Your task to perform on an android device: Go to accessibility settings Image 0: 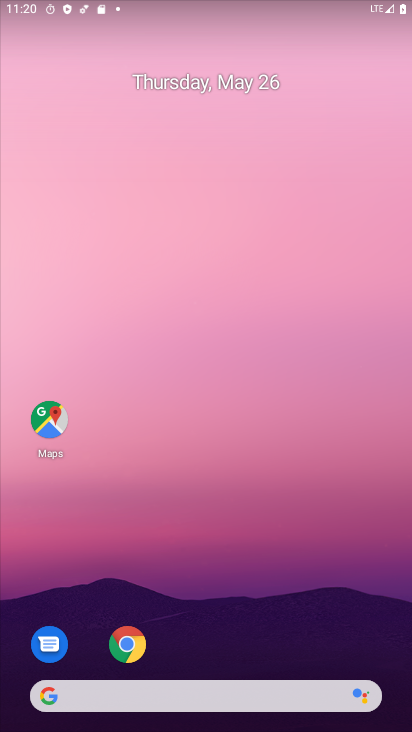
Step 0: drag from (113, 725) to (125, 104)
Your task to perform on an android device: Go to accessibility settings Image 1: 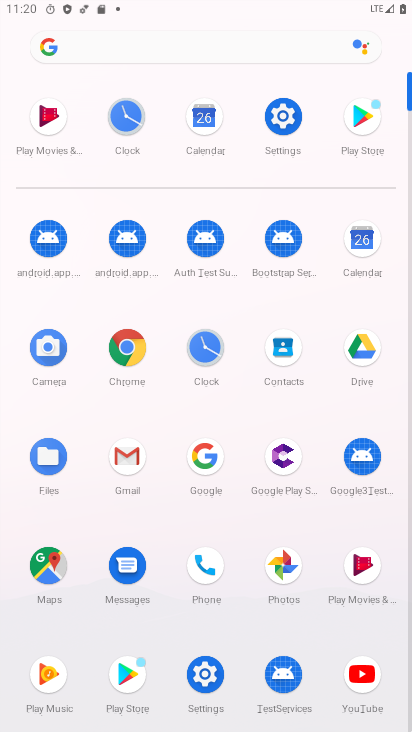
Step 1: click (284, 114)
Your task to perform on an android device: Go to accessibility settings Image 2: 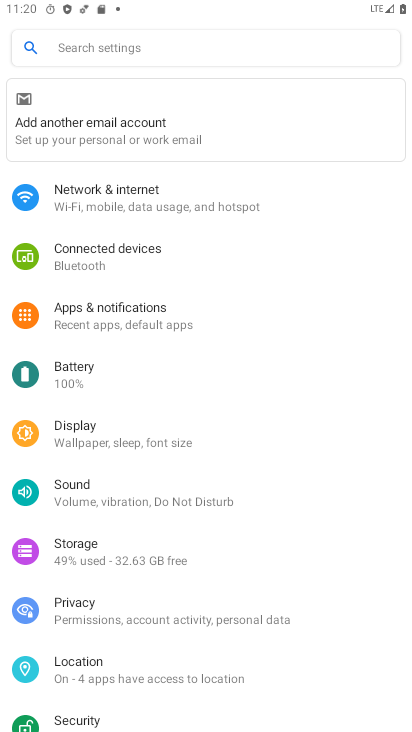
Step 2: drag from (325, 694) to (370, 196)
Your task to perform on an android device: Go to accessibility settings Image 3: 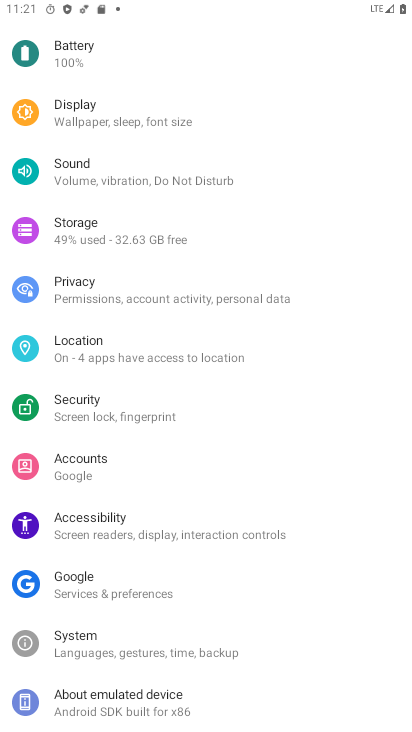
Step 3: click (243, 531)
Your task to perform on an android device: Go to accessibility settings Image 4: 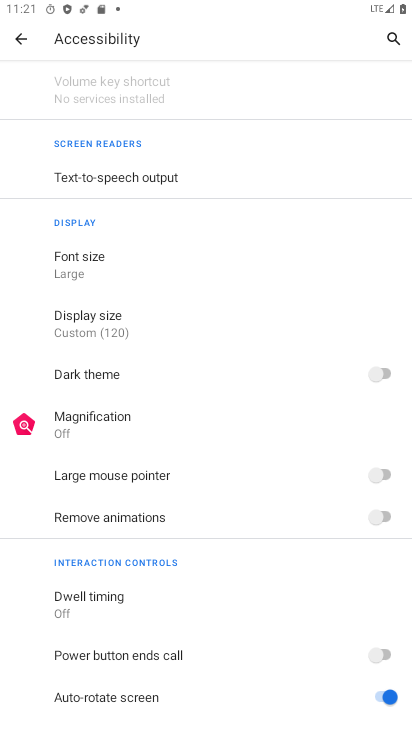
Step 4: task complete